Your task to perform on an android device: open a bookmark in the chrome app Image 0: 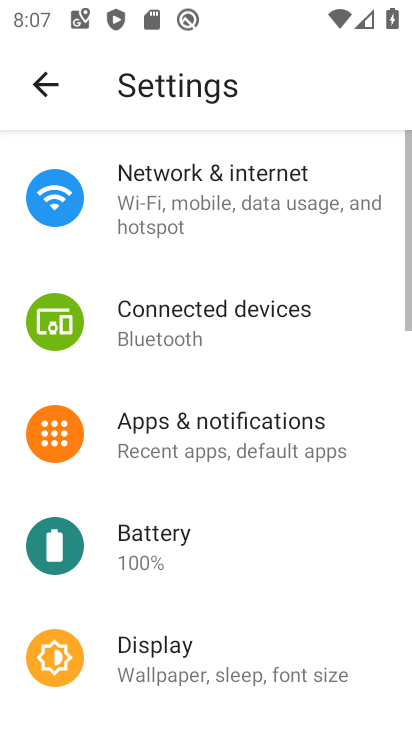
Step 0: press home button
Your task to perform on an android device: open a bookmark in the chrome app Image 1: 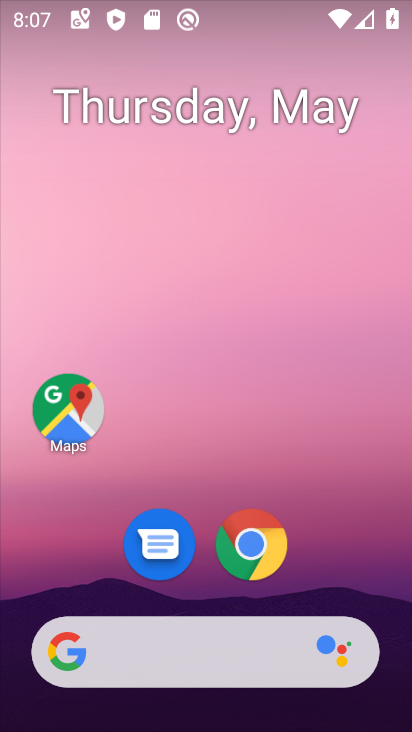
Step 1: drag from (383, 556) to (356, 64)
Your task to perform on an android device: open a bookmark in the chrome app Image 2: 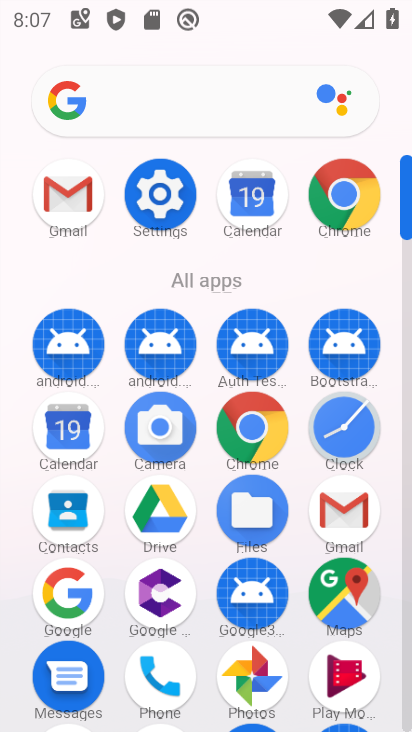
Step 2: click (350, 224)
Your task to perform on an android device: open a bookmark in the chrome app Image 3: 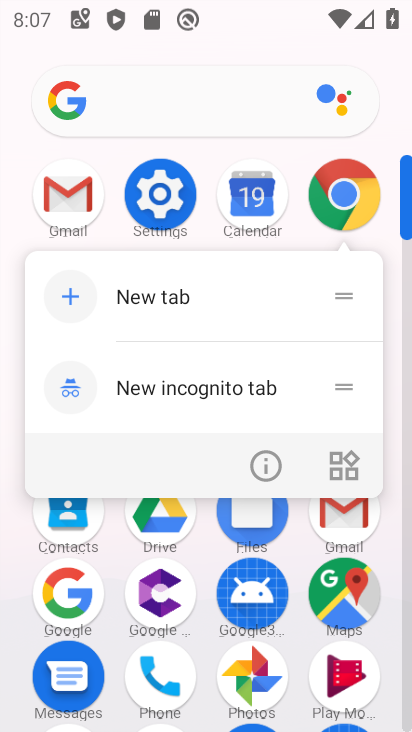
Step 3: click (350, 224)
Your task to perform on an android device: open a bookmark in the chrome app Image 4: 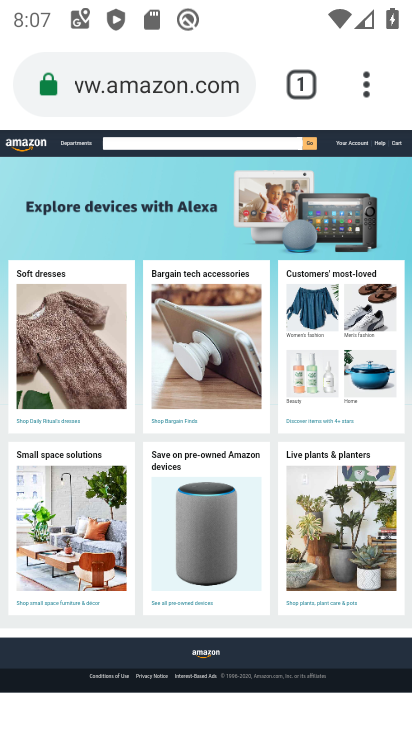
Step 4: task complete